Your task to perform on an android device: Open the web browser Image 0: 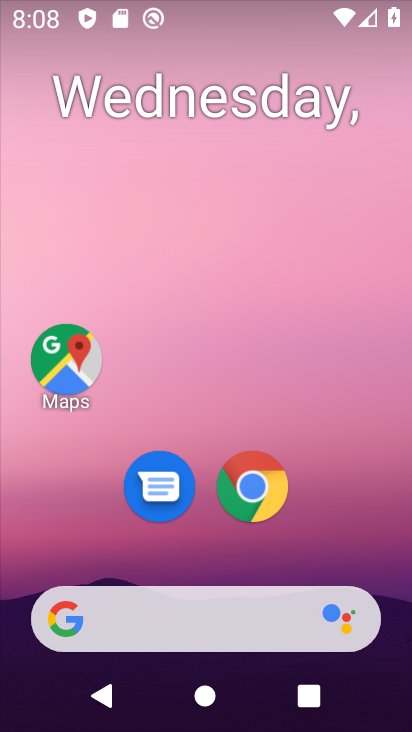
Step 0: click (255, 486)
Your task to perform on an android device: Open the web browser Image 1: 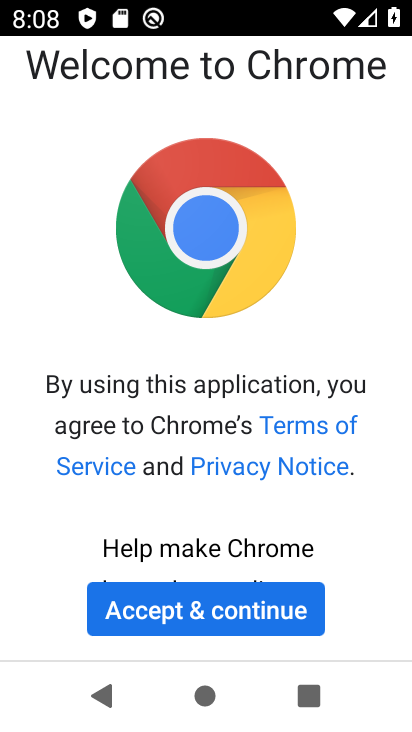
Step 1: click (192, 611)
Your task to perform on an android device: Open the web browser Image 2: 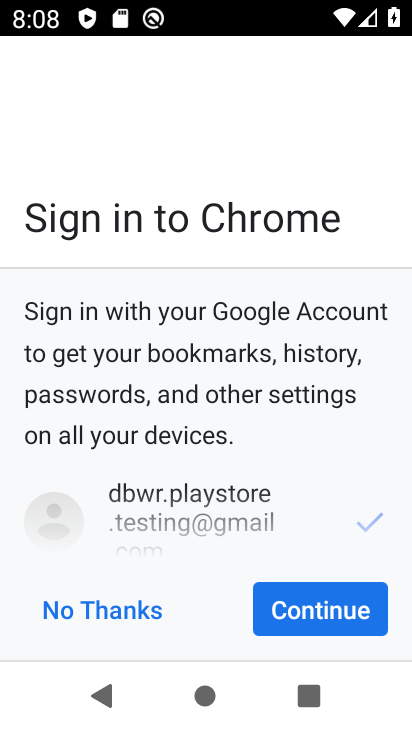
Step 2: click (321, 609)
Your task to perform on an android device: Open the web browser Image 3: 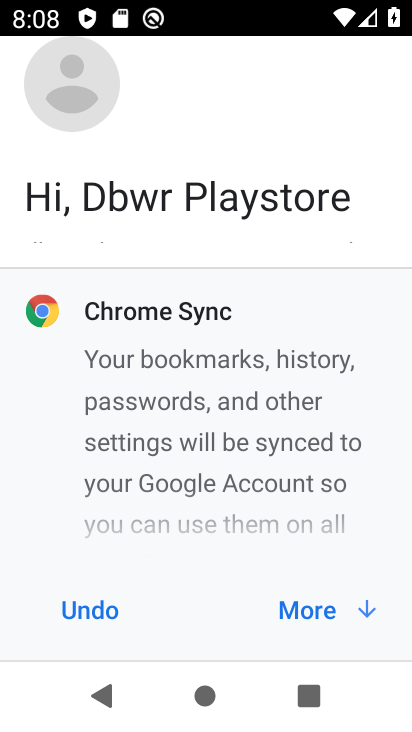
Step 3: click (321, 609)
Your task to perform on an android device: Open the web browser Image 4: 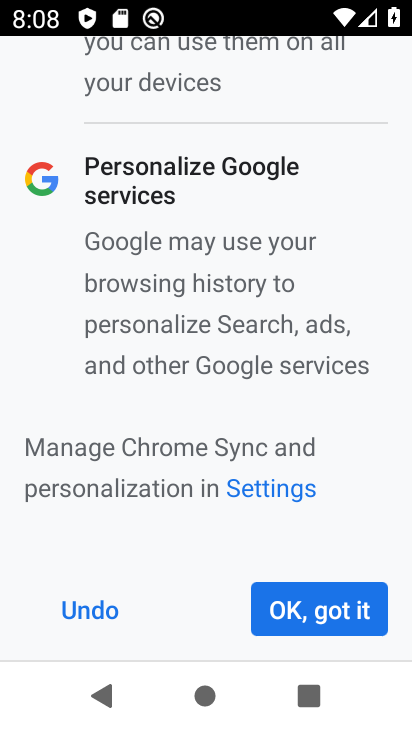
Step 4: click (321, 609)
Your task to perform on an android device: Open the web browser Image 5: 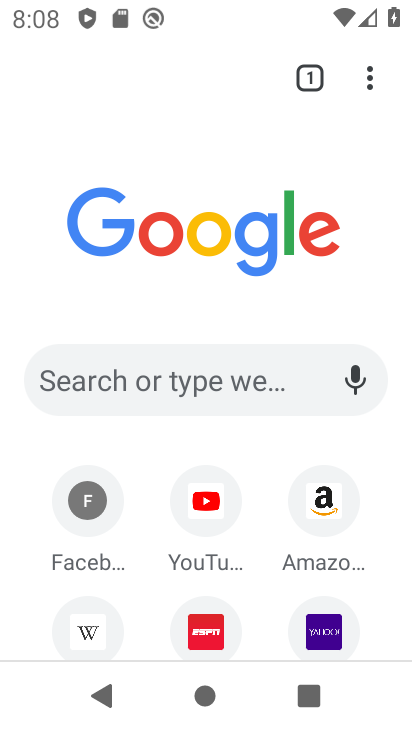
Step 5: task complete